Your task to perform on an android device: turn off data saver in the chrome app Image 0: 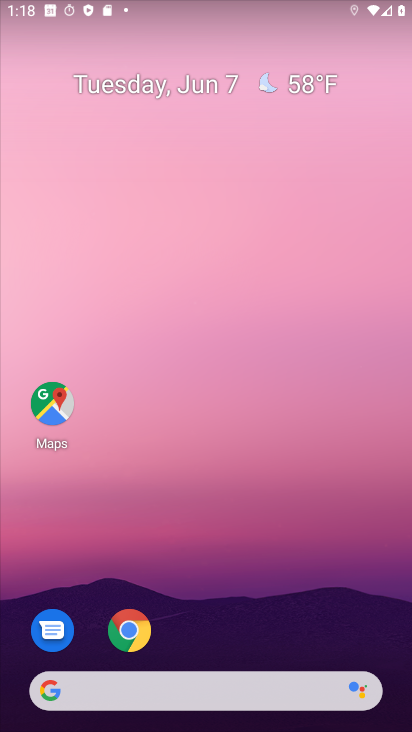
Step 0: click (130, 631)
Your task to perform on an android device: turn off data saver in the chrome app Image 1: 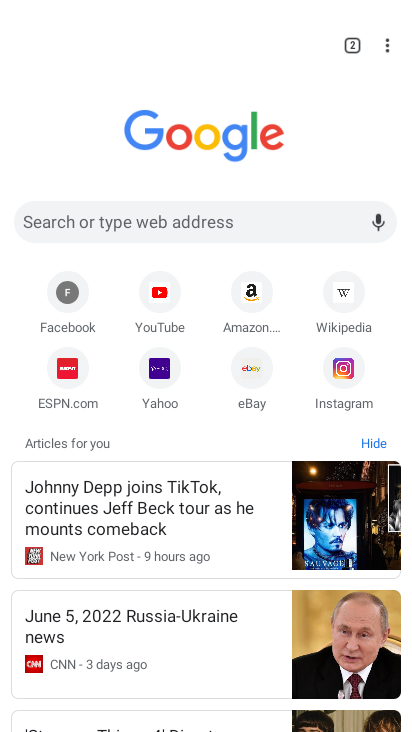
Step 1: click (386, 44)
Your task to perform on an android device: turn off data saver in the chrome app Image 2: 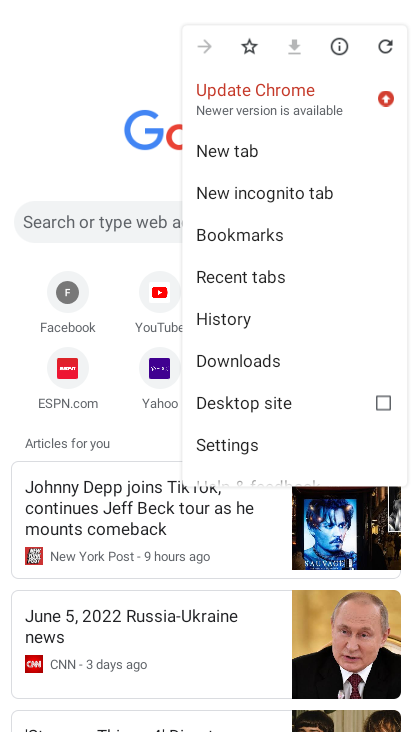
Step 2: click (237, 448)
Your task to perform on an android device: turn off data saver in the chrome app Image 3: 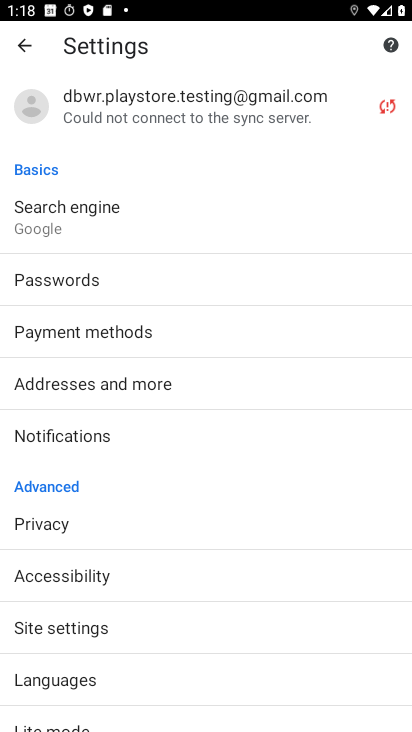
Step 3: drag from (119, 628) to (163, 388)
Your task to perform on an android device: turn off data saver in the chrome app Image 4: 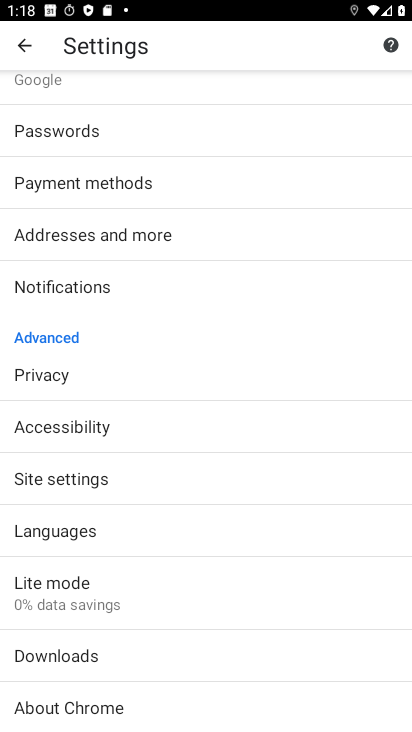
Step 4: click (73, 599)
Your task to perform on an android device: turn off data saver in the chrome app Image 5: 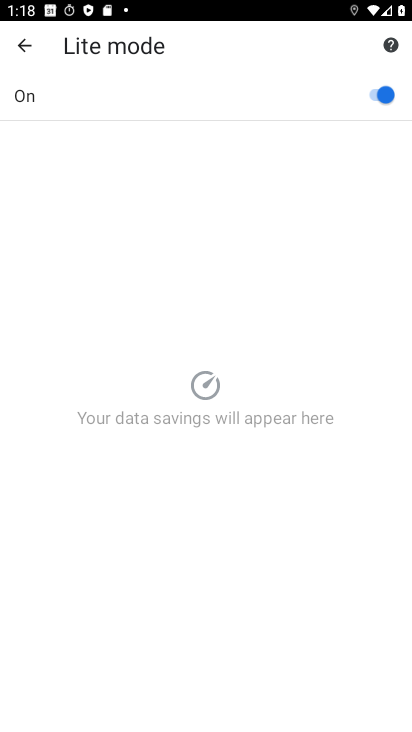
Step 5: click (339, 93)
Your task to perform on an android device: turn off data saver in the chrome app Image 6: 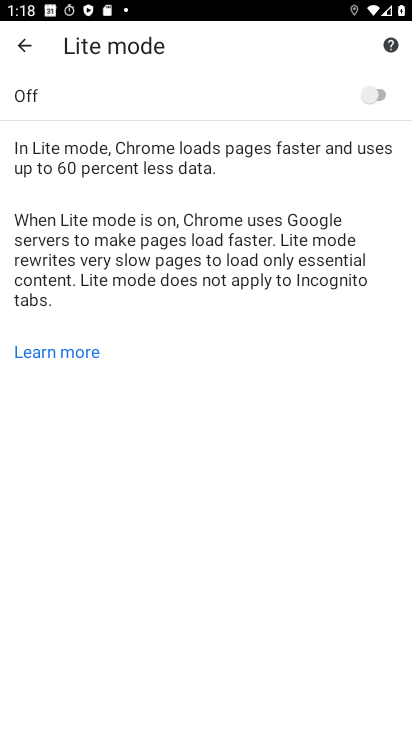
Step 6: task complete